Your task to perform on an android device: check android version Image 0: 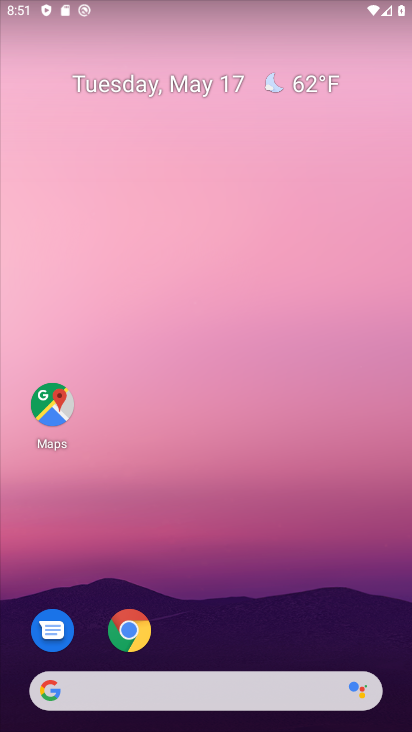
Step 0: drag from (234, 620) to (207, 192)
Your task to perform on an android device: check android version Image 1: 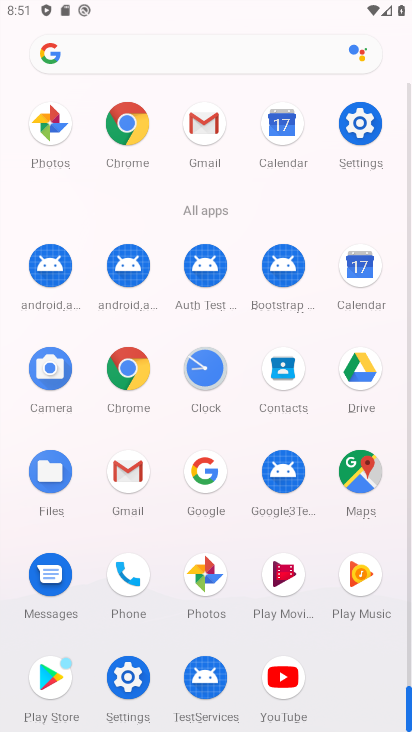
Step 1: click (347, 143)
Your task to perform on an android device: check android version Image 2: 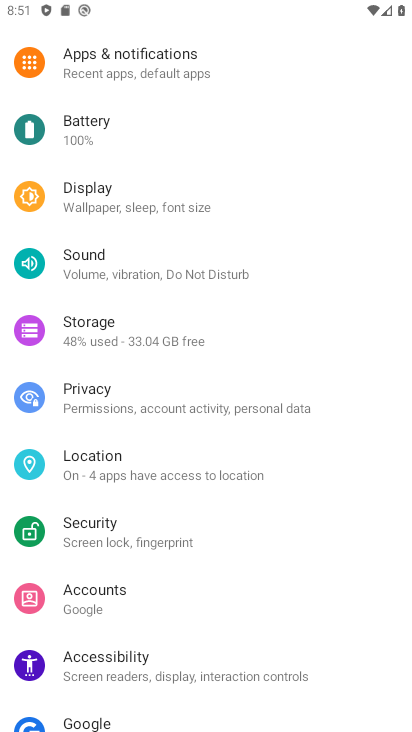
Step 2: drag from (150, 595) to (171, 311)
Your task to perform on an android device: check android version Image 3: 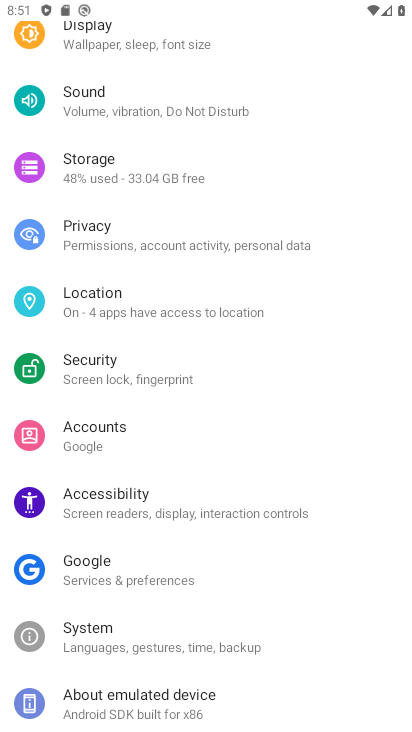
Step 3: click (132, 704)
Your task to perform on an android device: check android version Image 4: 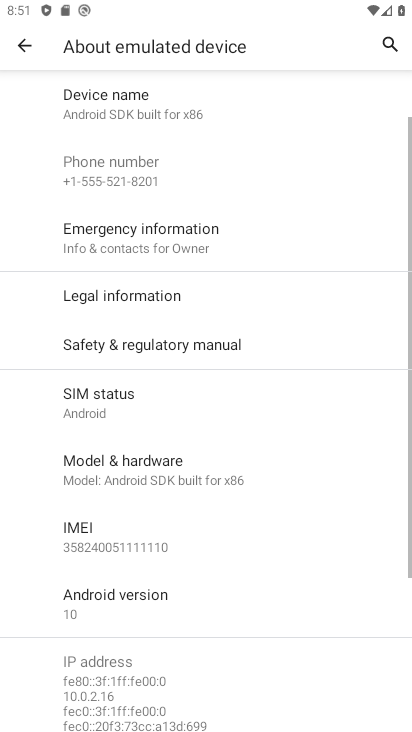
Step 4: click (129, 611)
Your task to perform on an android device: check android version Image 5: 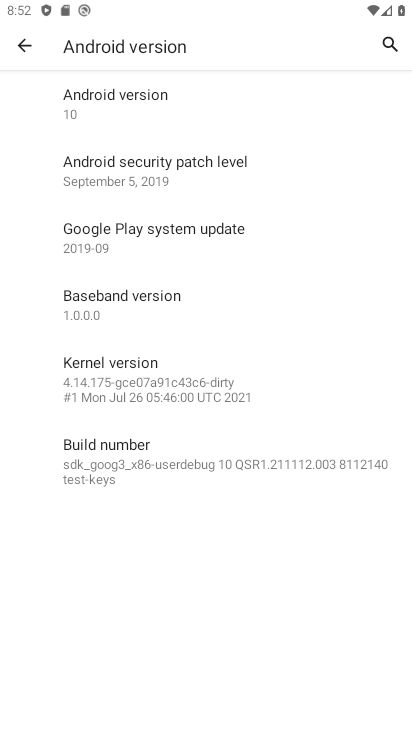
Step 5: task complete